Your task to perform on an android device: Play the last video I watched on Youtube Image 0: 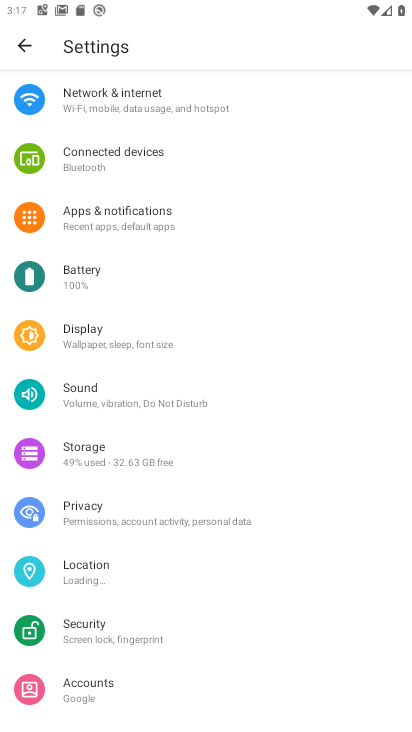
Step 0: press home button
Your task to perform on an android device: Play the last video I watched on Youtube Image 1: 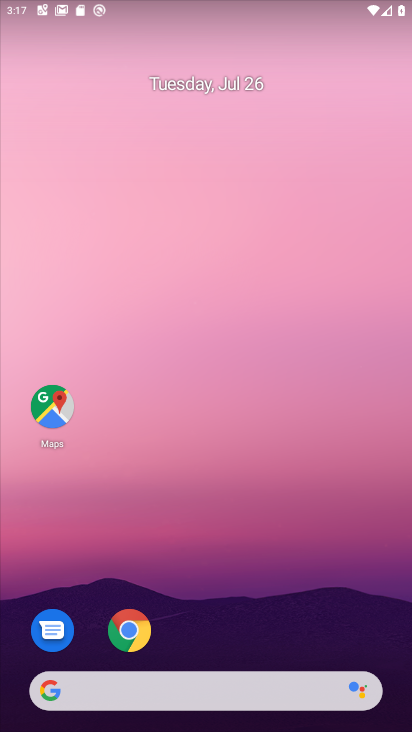
Step 1: drag from (209, 581) to (190, 206)
Your task to perform on an android device: Play the last video I watched on Youtube Image 2: 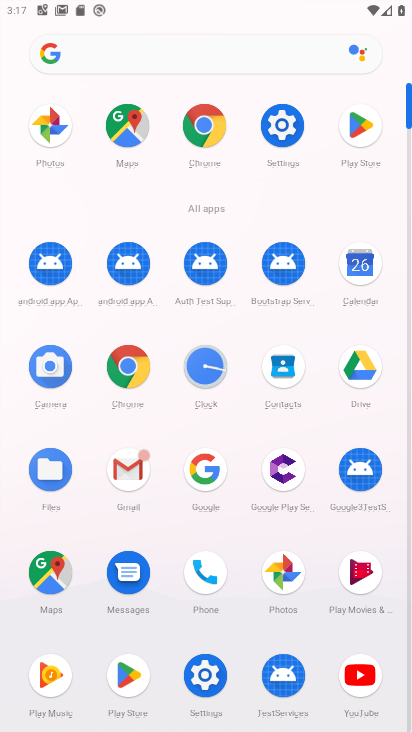
Step 2: click (352, 669)
Your task to perform on an android device: Play the last video I watched on Youtube Image 3: 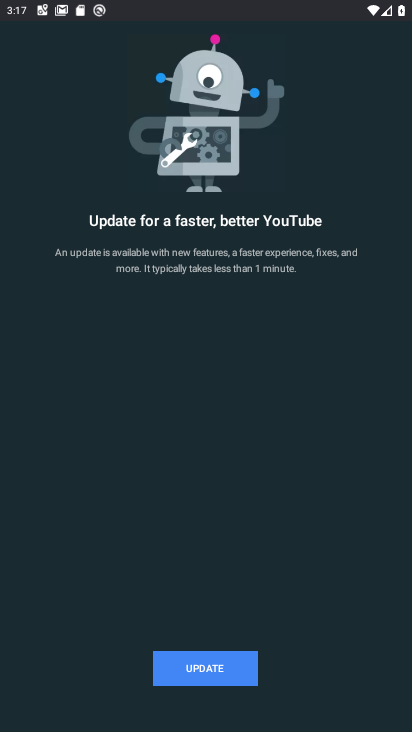
Step 3: click (235, 653)
Your task to perform on an android device: Play the last video I watched on Youtube Image 4: 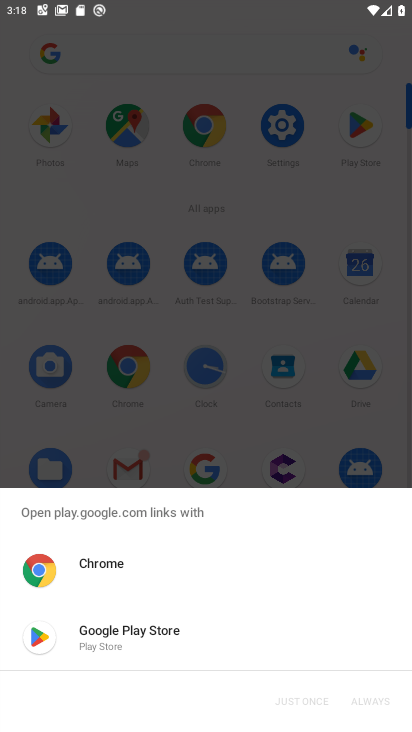
Step 4: click (134, 636)
Your task to perform on an android device: Play the last video I watched on Youtube Image 5: 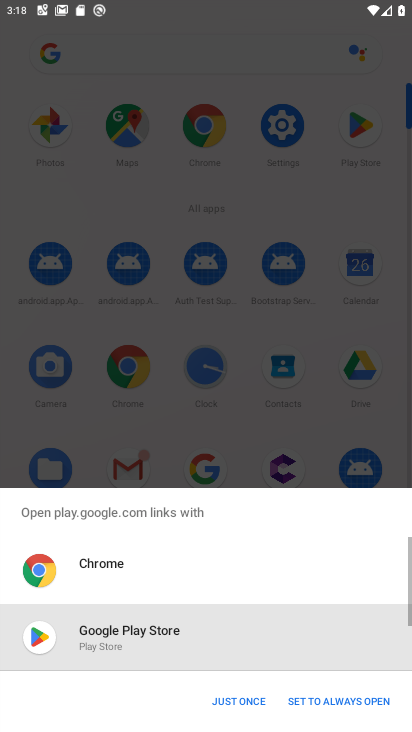
Step 5: click (142, 634)
Your task to perform on an android device: Play the last video I watched on Youtube Image 6: 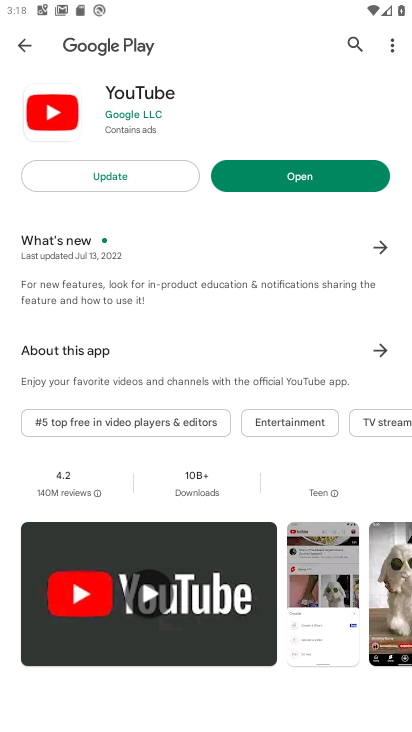
Step 6: click (141, 176)
Your task to perform on an android device: Play the last video I watched on Youtube Image 7: 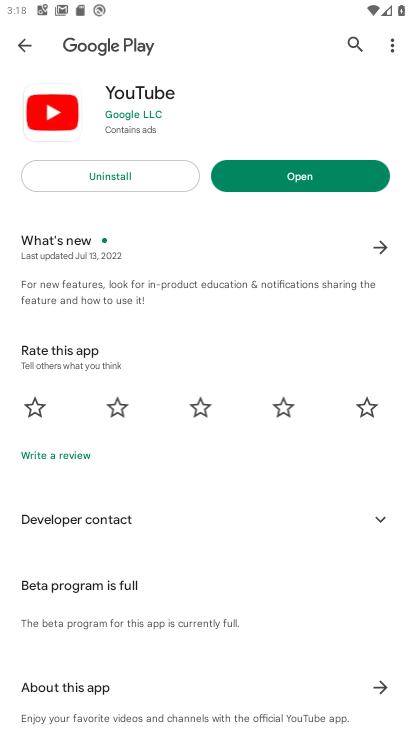
Step 7: click (231, 182)
Your task to perform on an android device: Play the last video I watched on Youtube Image 8: 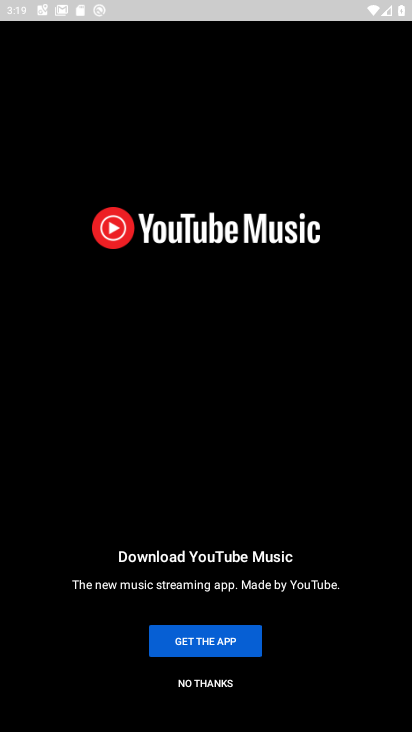
Step 8: click (200, 691)
Your task to perform on an android device: Play the last video I watched on Youtube Image 9: 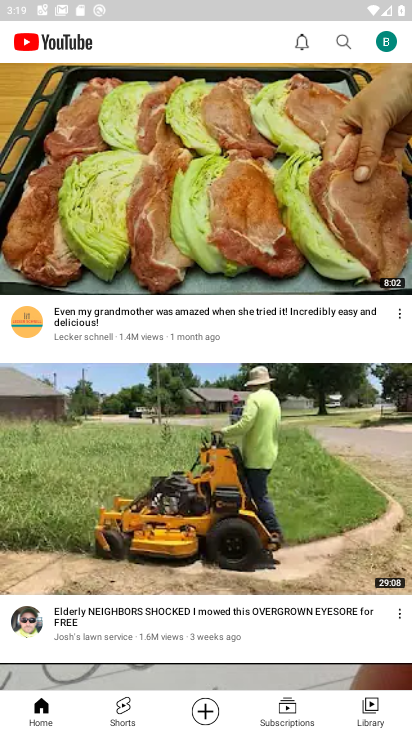
Step 9: click (374, 703)
Your task to perform on an android device: Play the last video I watched on Youtube Image 10: 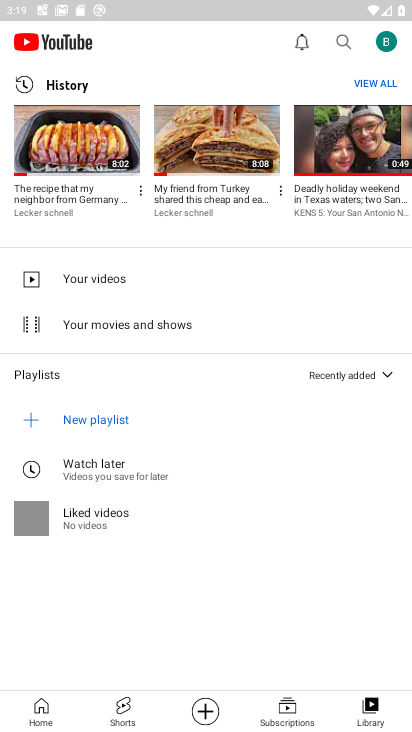
Step 10: click (55, 149)
Your task to perform on an android device: Play the last video I watched on Youtube Image 11: 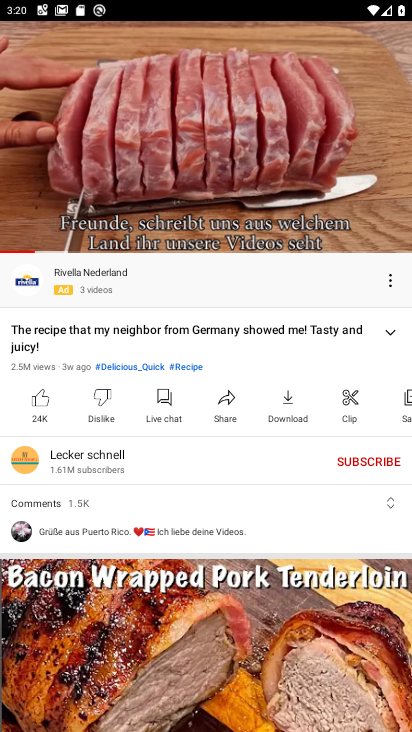
Step 11: task complete